Your task to perform on an android device: turn on the 24-hour format for clock Image 0: 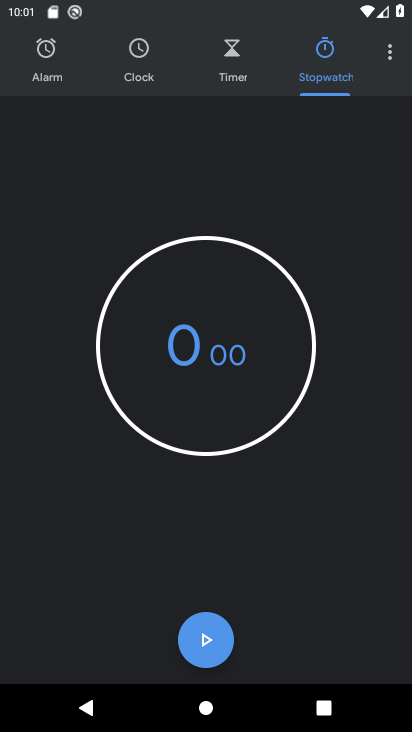
Step 0: press home button
Your task to perform on an android device: turn on the 24-hour format for clock Image 1: 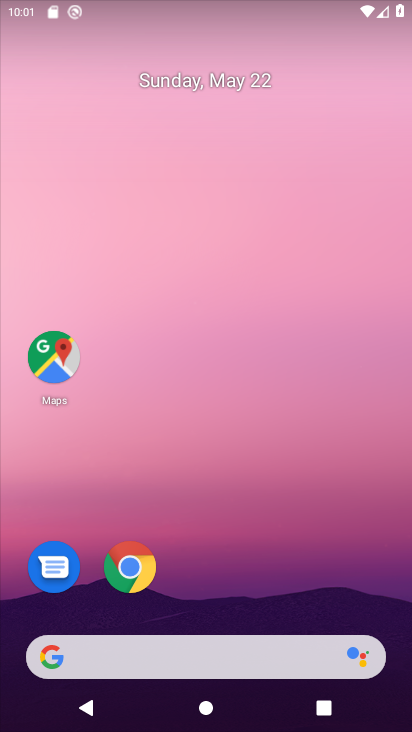
Step 1: drag from (215, 611) to (213, 33)
Your task to perform on an android device: turn on the 24-hour format for clock Image 2: 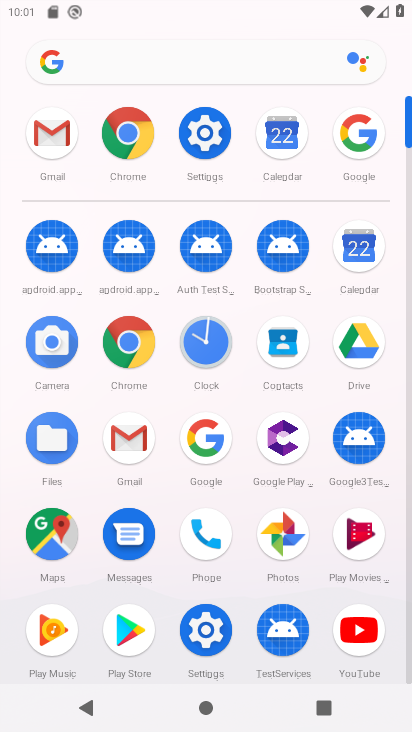
Step 2: click (203, 331)
Your task to perform on an android device: turn on the 24-hour format for clock Image 3: 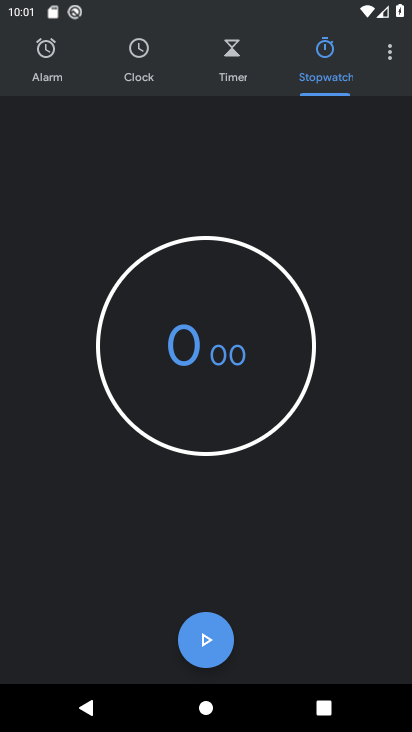
Step 3: click (395, 52)
Your task to perform on an android device: turn on the 24-hour format for clock Image 4: 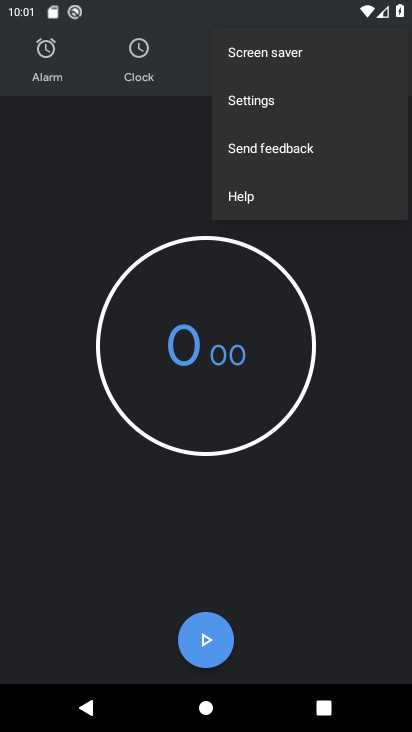
Step 4: click (296, 100)
Your task to perform on an android device: turn on the 24-hour format for clock Image 5: 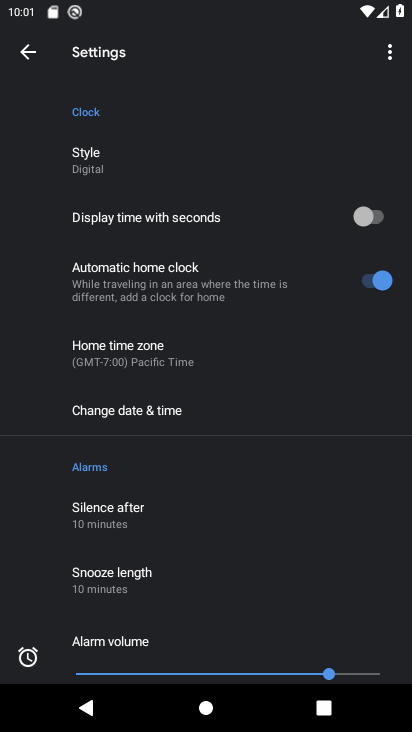
Step 5: click (199, 406)
Your task to perform on an android device: turn on the 24-hour format for clock Image 6: 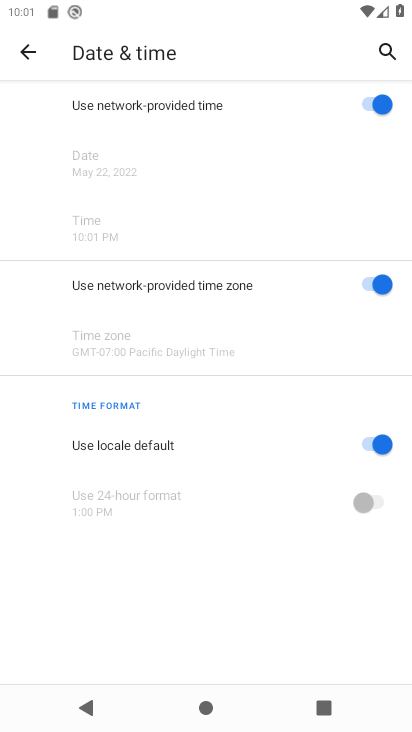
Step 6: click (376, 442)
Your task to perform on an android device: turn on the 24-hour format for clock Image 7: 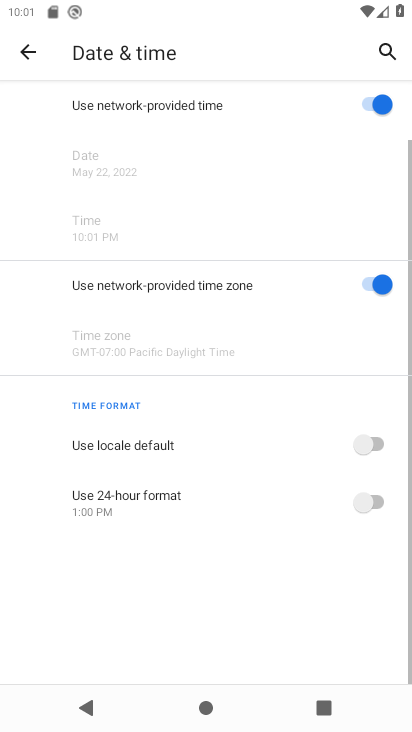
Step 7: click (372, 498)
Your task to perform on an android device: turn on the 24-hour format for clock Image 8: 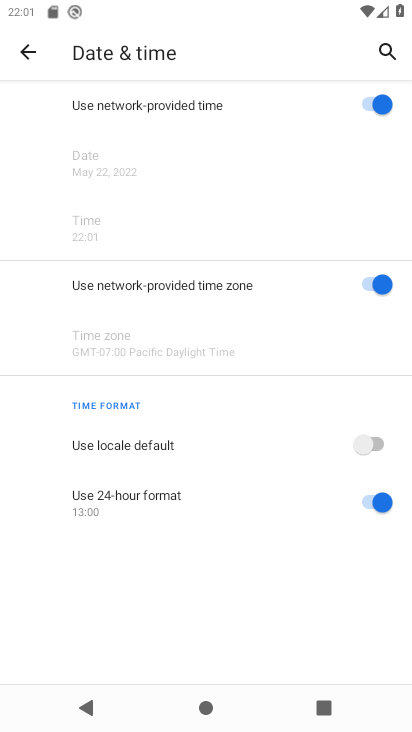
Step 8: task complete